Your task to perform on an android device: turn on the 24-hour format for clock Image 0: 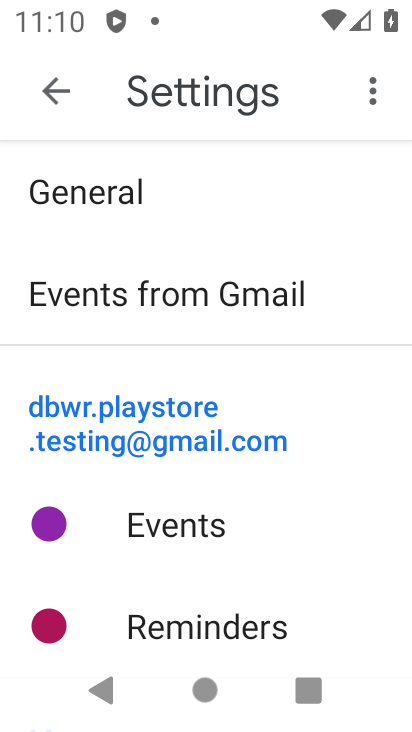
Step 0: press home button
Your task to perform on an android device: turn on the 24-hour format for clock Image 1: 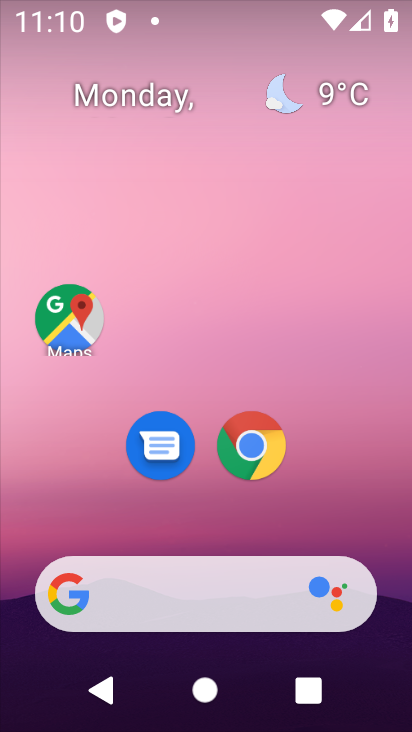
Step 1: drag from (294, 610) to (261, 134)
Your task to perform on an android device: turn on the 24-hour format for clock Image 2: 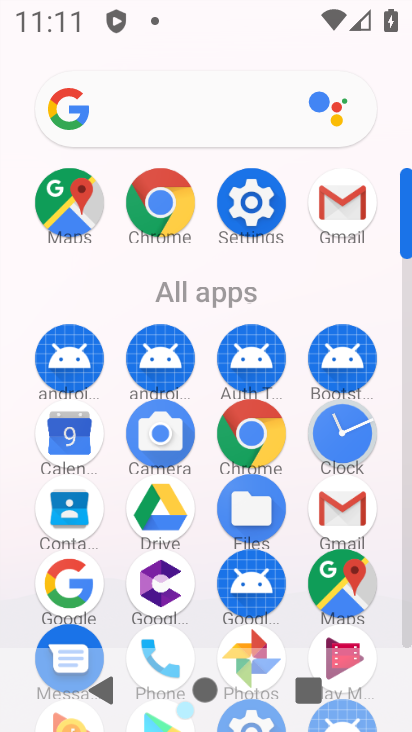
Step 2: click (360, 421)
Your task to perform on an android device: turn on the 24-hour format for clock Image 3: 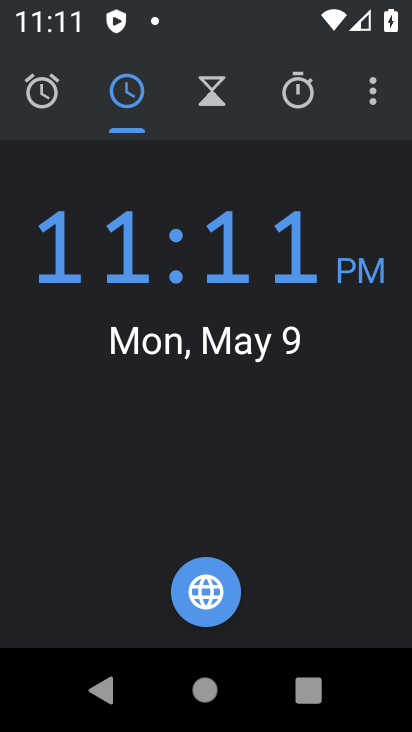
Step 3: drag from (377, 91) to (303, 166)
Your task to perform on an android device: turn on the 24-hour format for clock Image 4: 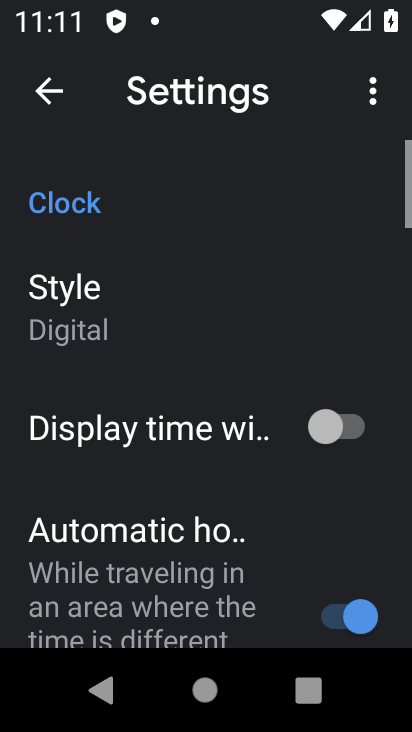
Step 4: click (302, 179)
Your task to perform on an android device: turn on the 24-hour format for clock Image 5: 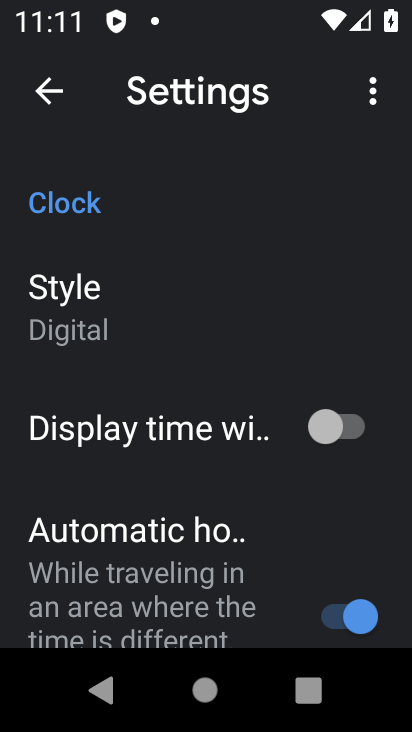
Step 5: drag from (278, 628) to (248, 212)
Your task to perform on an android device: turn on the 24-hour format for clock Image 6: 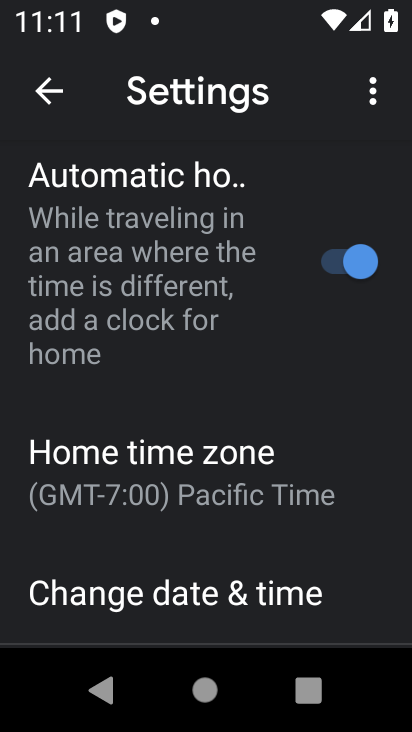
Step 6: click (278, 591)
Your task to perform on an android device: turn on the 24-hour format for clock Image 7: 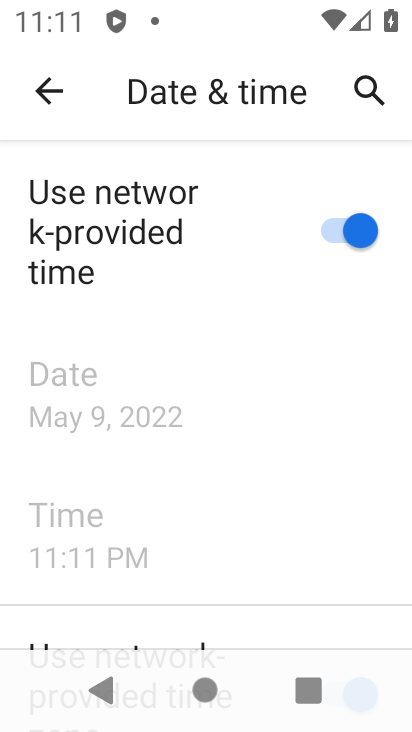
Step 7: drag from (294, 591) to (273, 46)
Your task to perform on an android device: turn on the 24-hour format for clock Image 8: 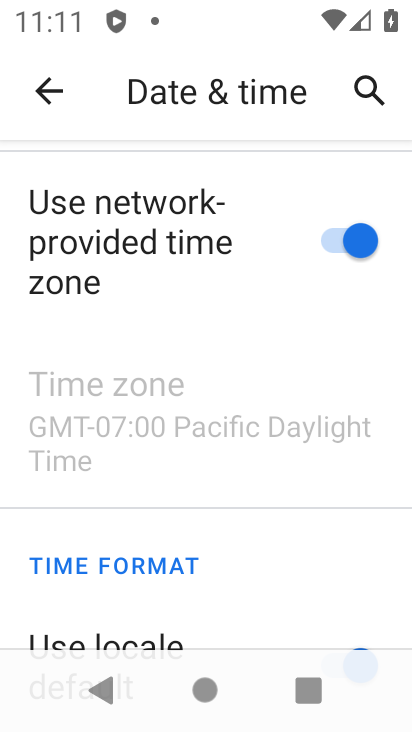
Step 8: drag from (296, 603) to (285, 132)
Your task to perform on an android device: turn on the 24-hour format for clock Image 9: 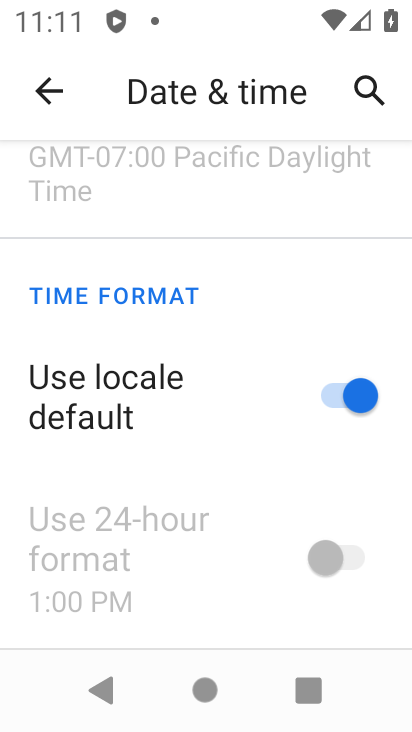
Step 9: click (341, 397)
Your task to perform on an android device: turn on the 24-hour format for clock Image 10: 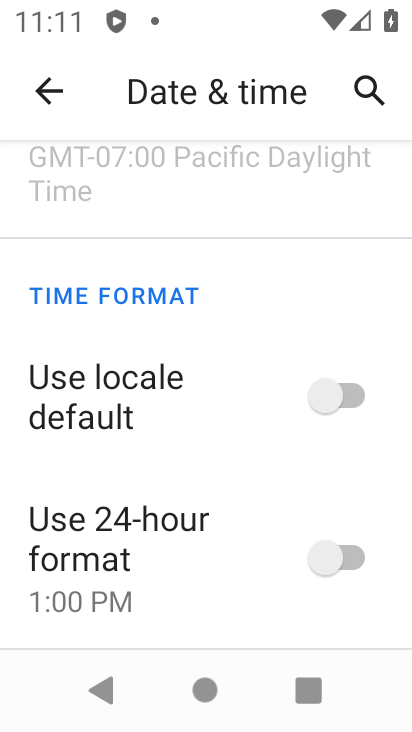
Step 10: click (355, 555)
Your task to perform on an android device: turn on the 24-hour format for clock Image 11: 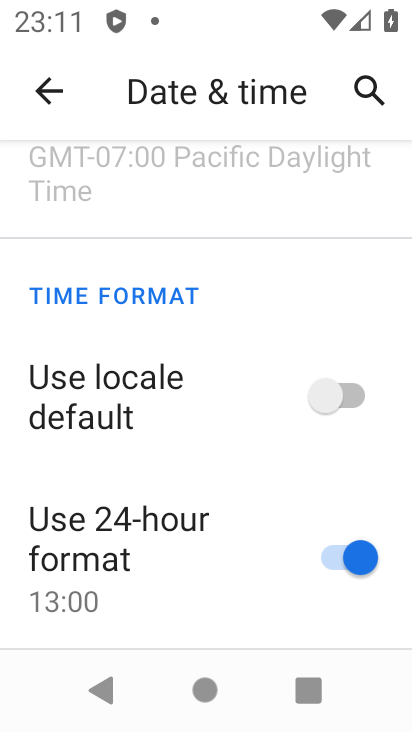
Step 11: task complete